Your task to perform on an android device: Clear the cart on newegg.com. Search for "apple airpods" on newegg.com, select the first entry, and add it to the cart. Image 0: 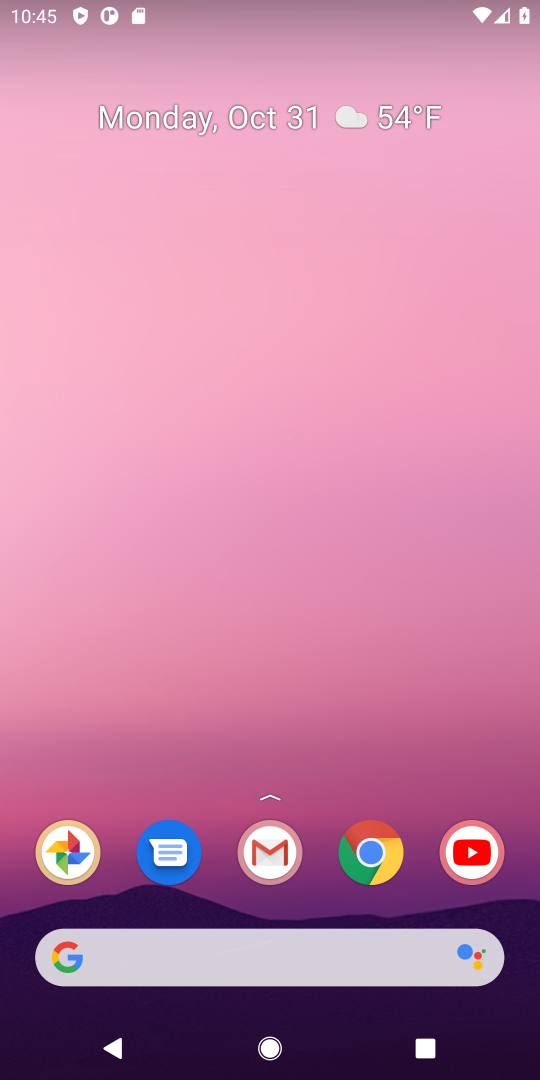
Step 0: click (368, 831)
Your task to perform on an android device: Clear the cart on newegg.com. Search for "apple airpods" on newegg.com, select the first entry, and add it to the cart. Image 1: 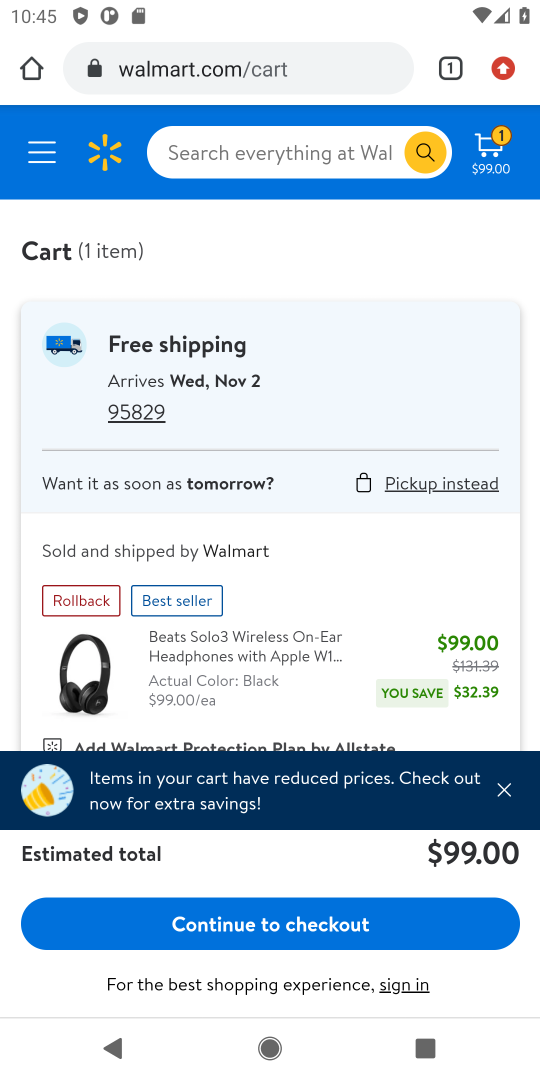
Step 1: click (273, 146)
Your task to perform on an android device: Clear the cart on newegg.com. Search for "apple airpods" on newegg.com, select the first entry, and add it to the cart. Image 2: 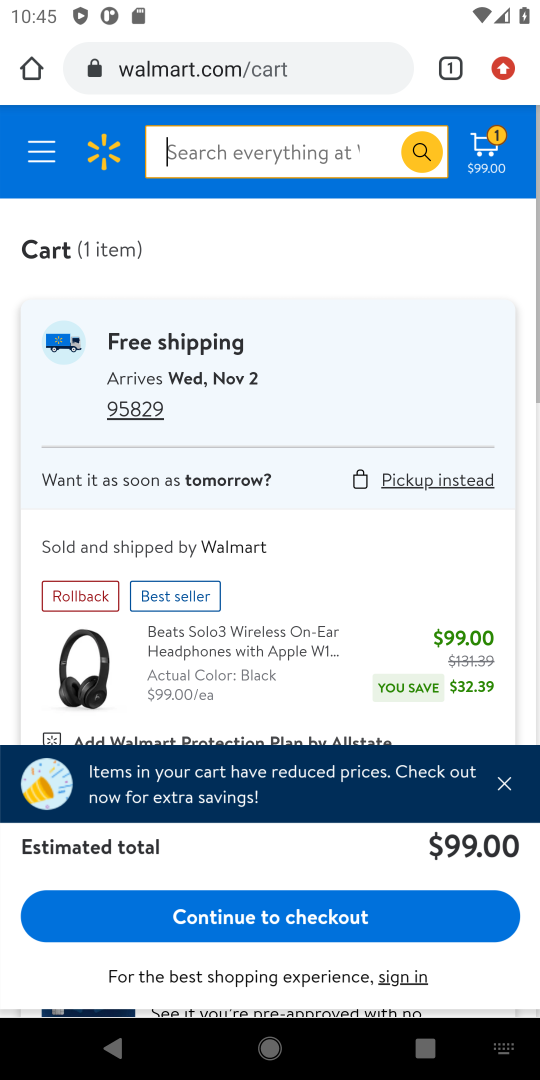
Step 2: click (260, 56)
Your task to perform on an android device: Clear the cart on newegg.com. Search for "apple airpods" on newegg.com, select the first entry, and add it to the cart. Image 3: 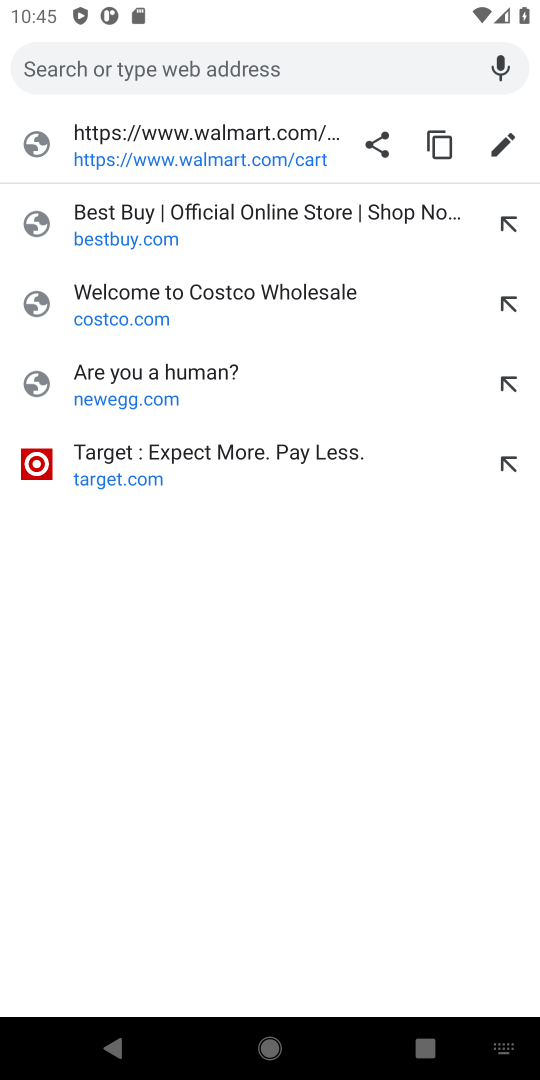
Step 3: type "newegg.com"
Your task to perform on an android device: Clear the cart on newegg.com. Search for "apple airpods" on newegg.com, select the first entry, and add it to the cart. Image 4: 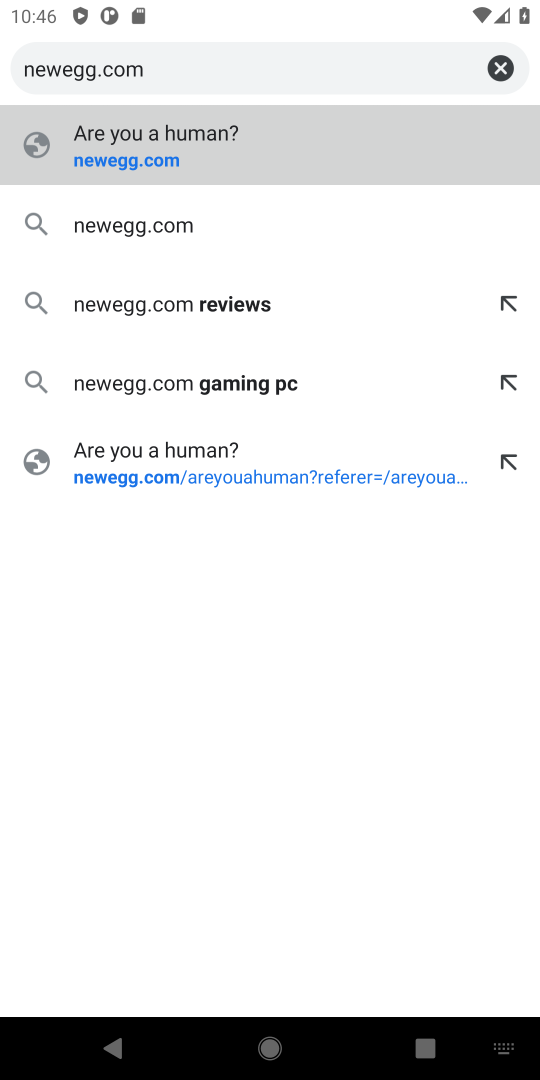
Step 4: press enter
Your task to perform on an android device: Clear the cart on newegg.com. Search for "apple airpods" on newegg.com, select the first entry, and add it to the cart. Image 5: 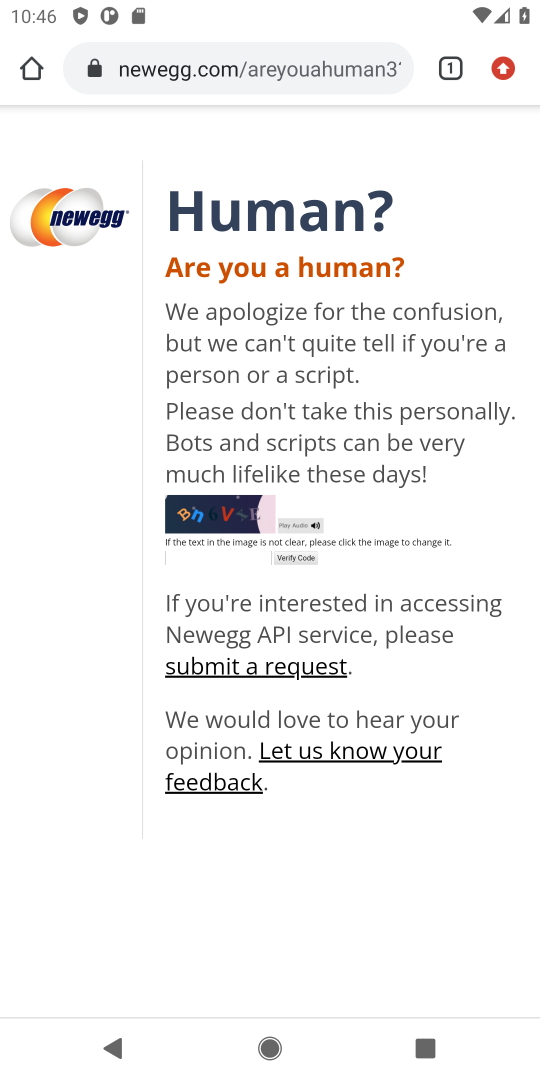
Step 5: click (193, 560)
Your task to perform on an android device: Clear the cart on newegg.com. Search for "apple airpods" on newegg.com, select the first entry, and add it to the cart. Image 6: 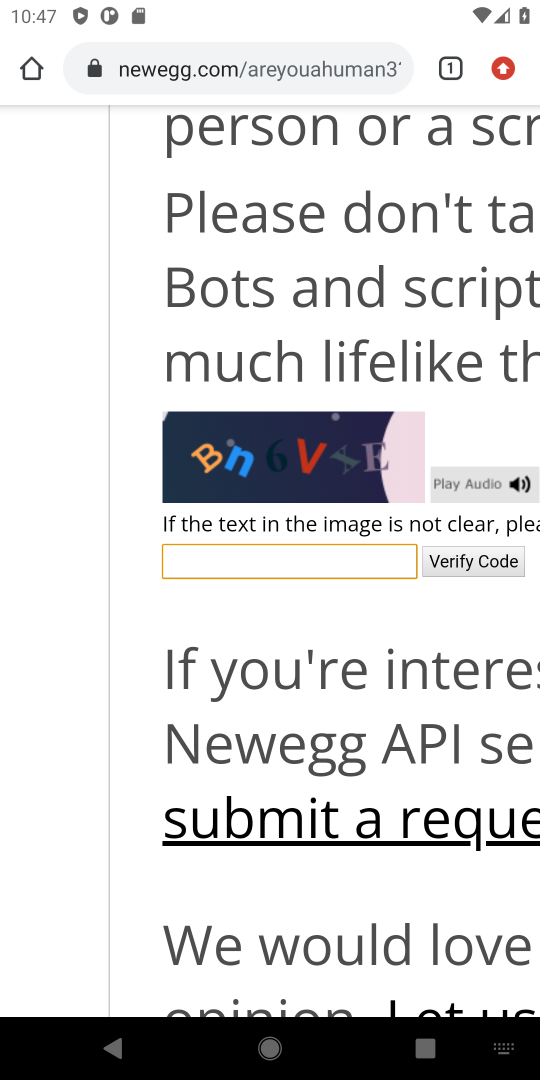
Step 6: drag from (320, 673) to (166, 650)
Your task to perform on an android device: Clear the cart on newegg.com. Search for "apple airpods" on newegg.com, select the first entry, and add it to the cart. Image 7: 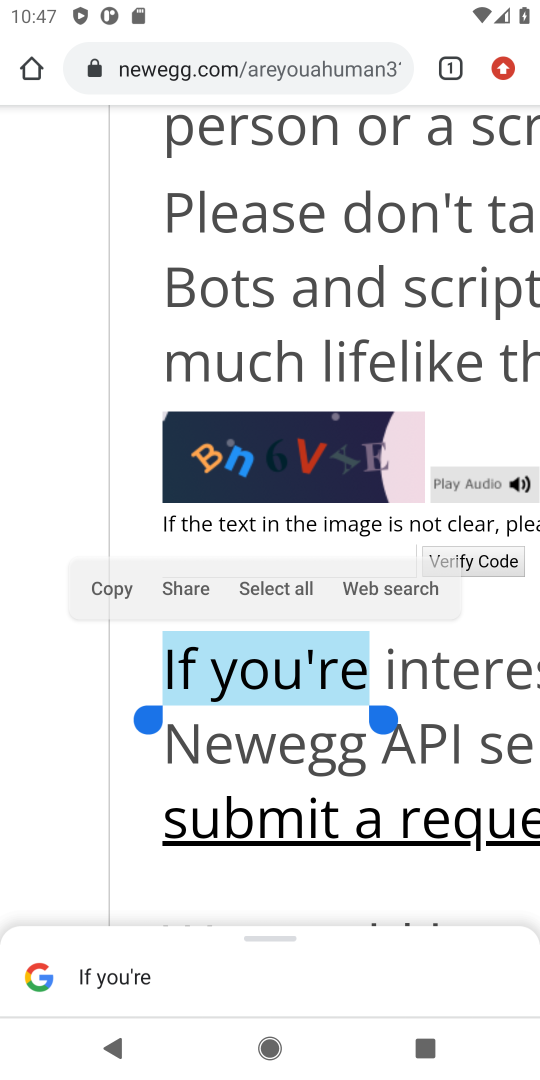
Step 7: click (318, 590)
Your task to perform on an android device: Clear the cart on newegg.com. Search for "apple airpods" on newegg.com, select the first entry, and add it to the cart. Image 8: 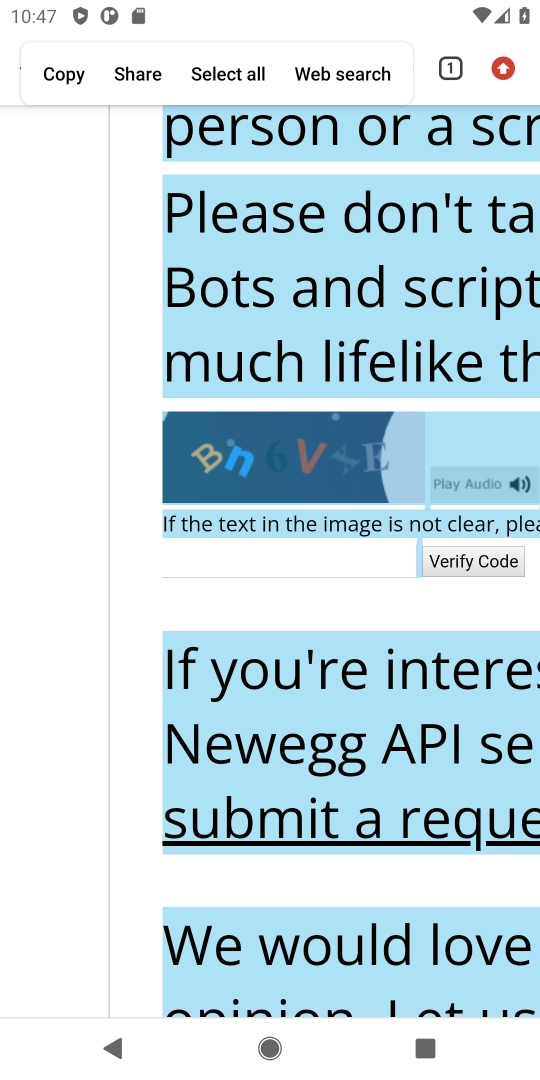
Step 8: click (256, 617)
Your task to perform on an android device: Clear the cart on newegg.com. Search for "apple airpods" on newegg.com, select the first entry, and add it to the cart. Image 9: 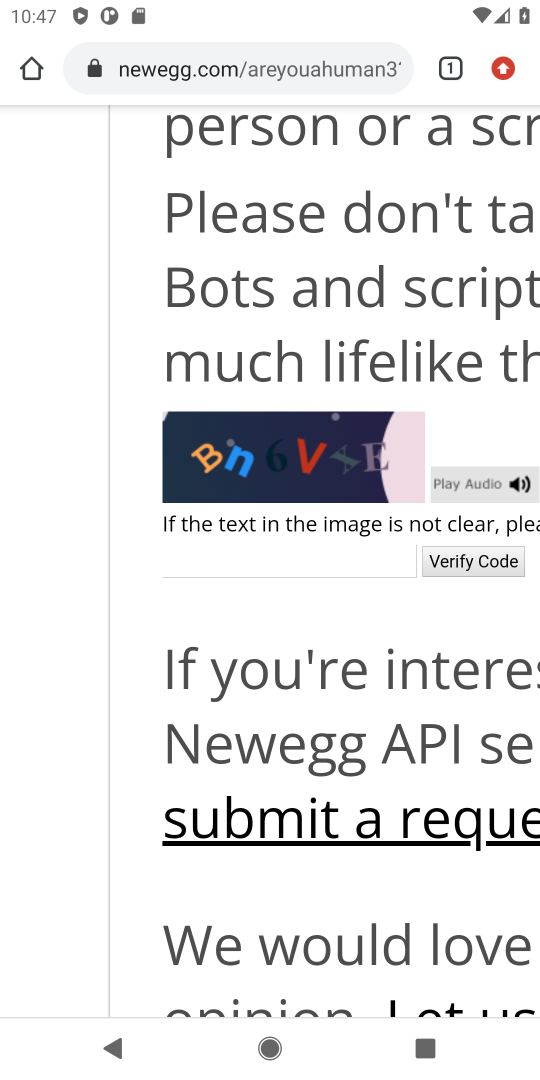
Step 9: drag from (422, 632) to (190, 628)
Your task to perform on an android device: Clear the cart on newegg.com. Search for "apple airpods" on newegg.com, select the first entry, and add it to the cart. Image 10: 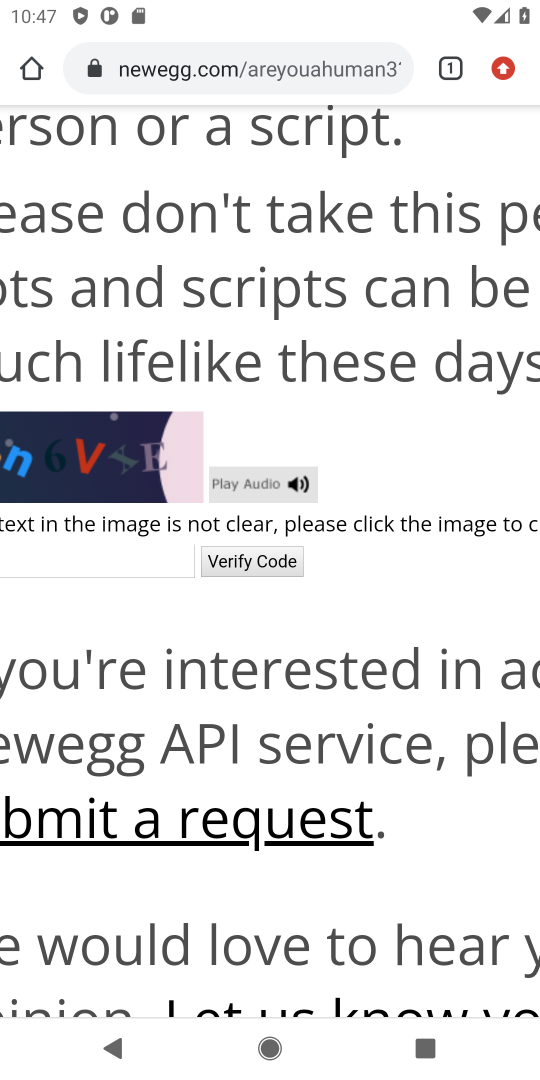
Step 10: press back button
Your task to perform on an android device: Clear the cart on newegg.com. Search for "apple airpods" on newegg.com, select the first entry, and add it to the cart. Image 11: 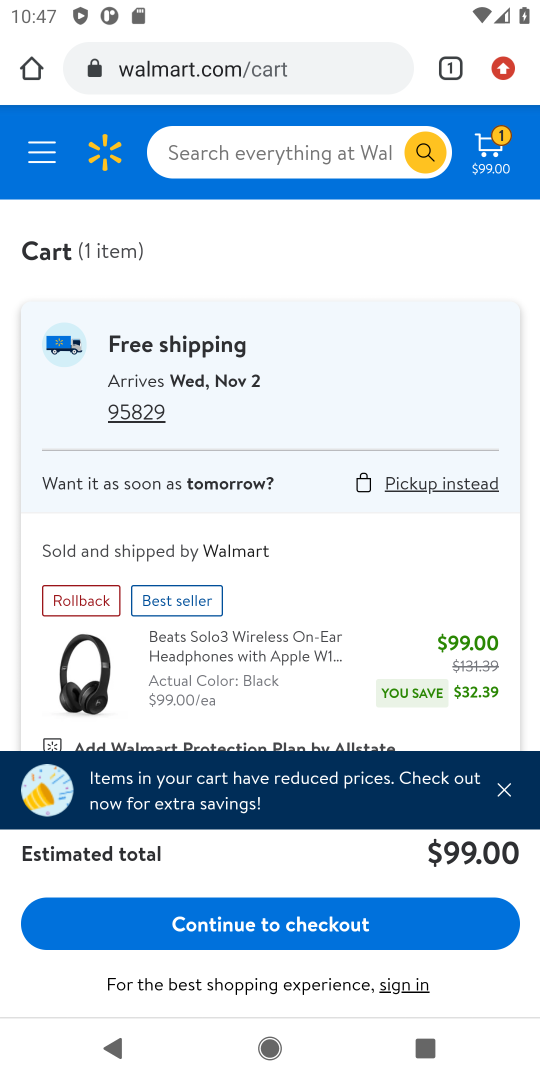
Step 11: click (203, 76)
Your task to perform on an android device: Clear the cart on newegg.com. Search for "apple airpods" on newegg.com, select the first entry, and add it to the cart. Image 12: 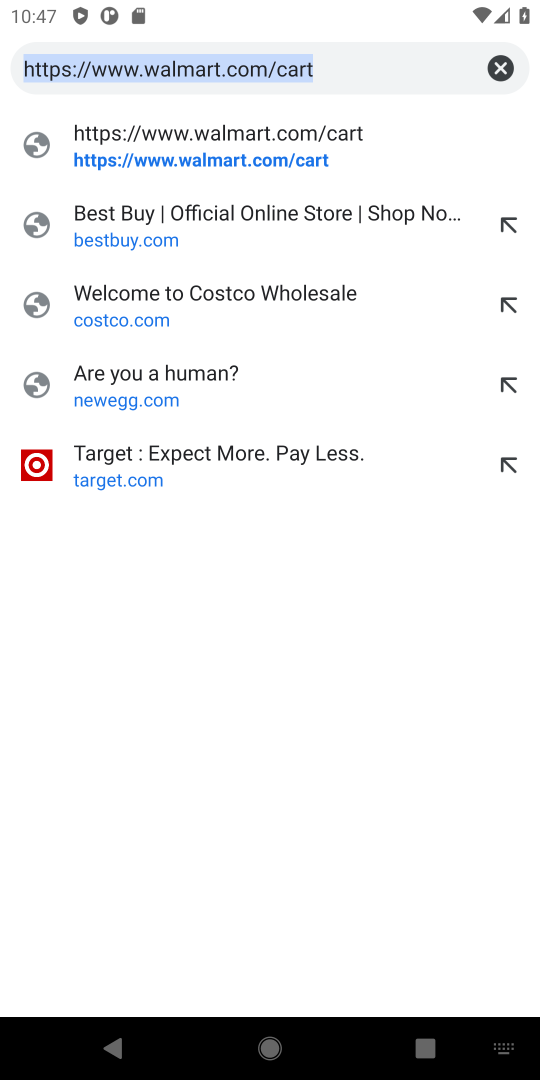
Step 12: type "newegg.com"
Your task to perform on an android device: Clear the cart on newegg.com. Search for "apple airpods" on newegg.com, select the first entry, and add it to the cart. Image 13: 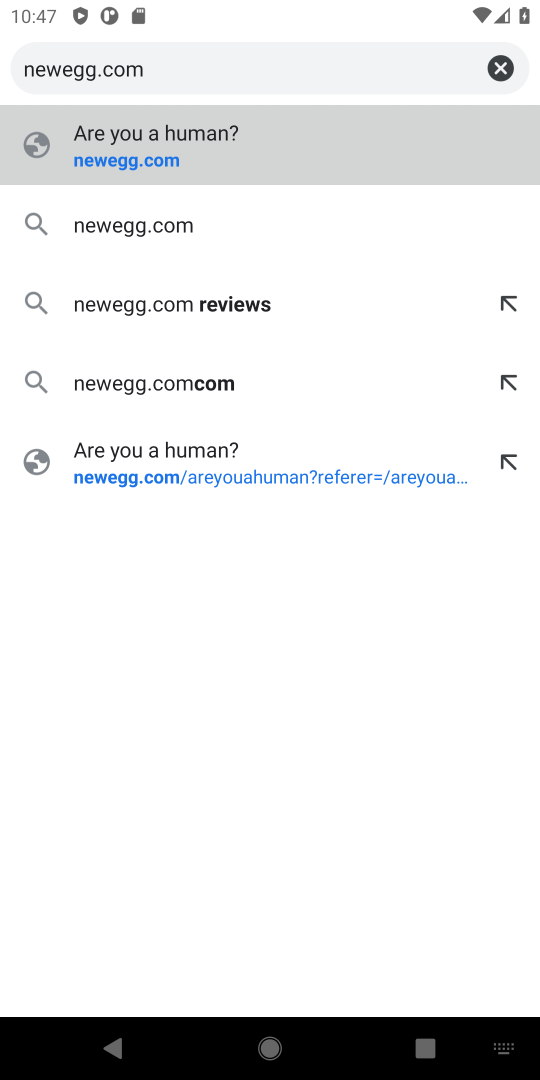
Step 13: type ""
Your task to perform on an android device: Clear the cart on newegg.com. Search for "apple airpods" on newegg.com, select the first entry, and add it to the cart. Image 14: 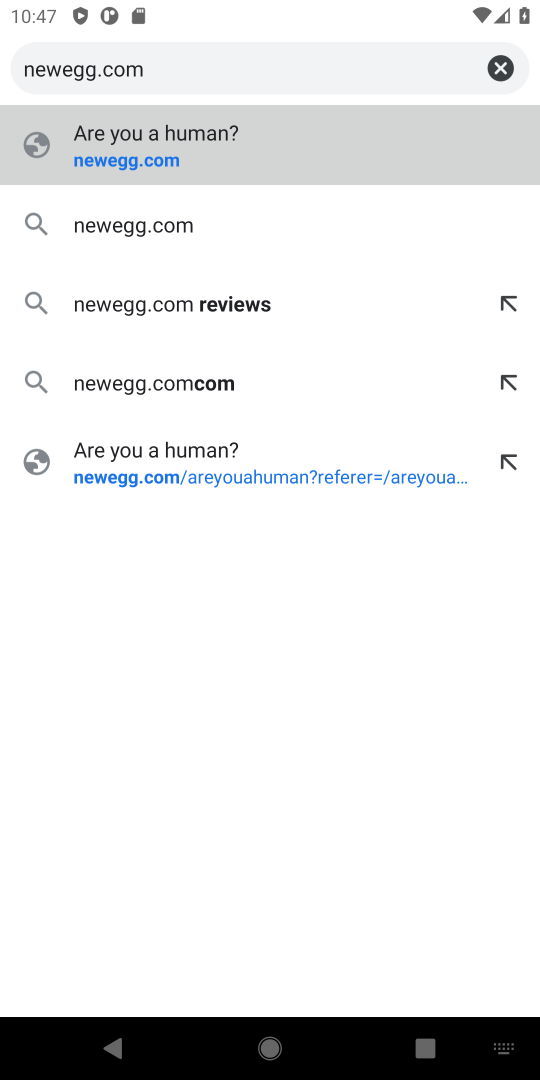
Step 14: press enter
Your task to perform on an android device: Clear the cart on newegg.com. Search for "apple airpods" on newegg.com, select the first entry, and add it to the cart. Image 15: 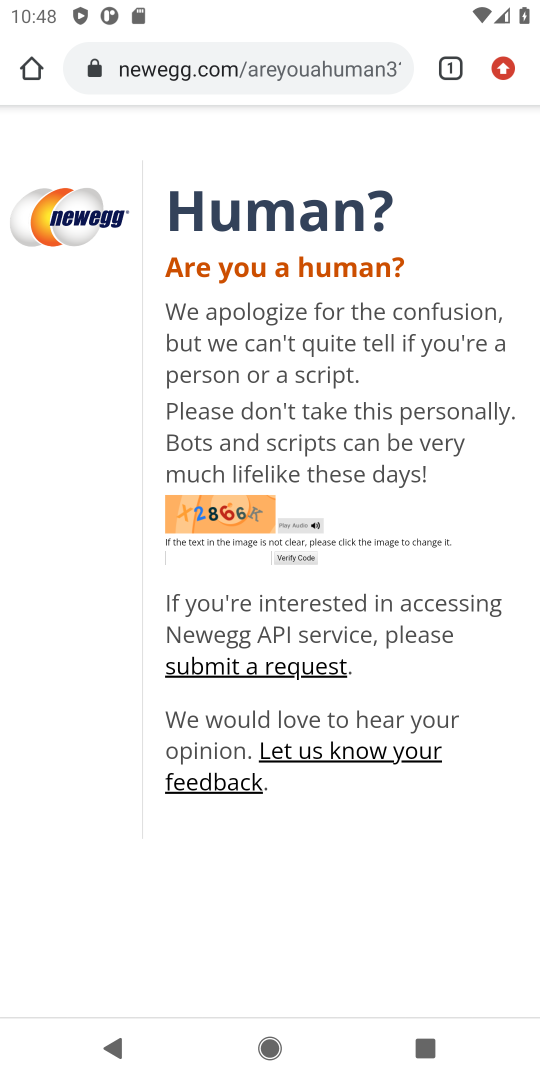
Step 15: click (204, 560)
Your task to perform on an android device: Clear the cart on newegg.com. Search for "apple airpods" on newegg.com, select the first entry, and add it to the cart. Image 16: 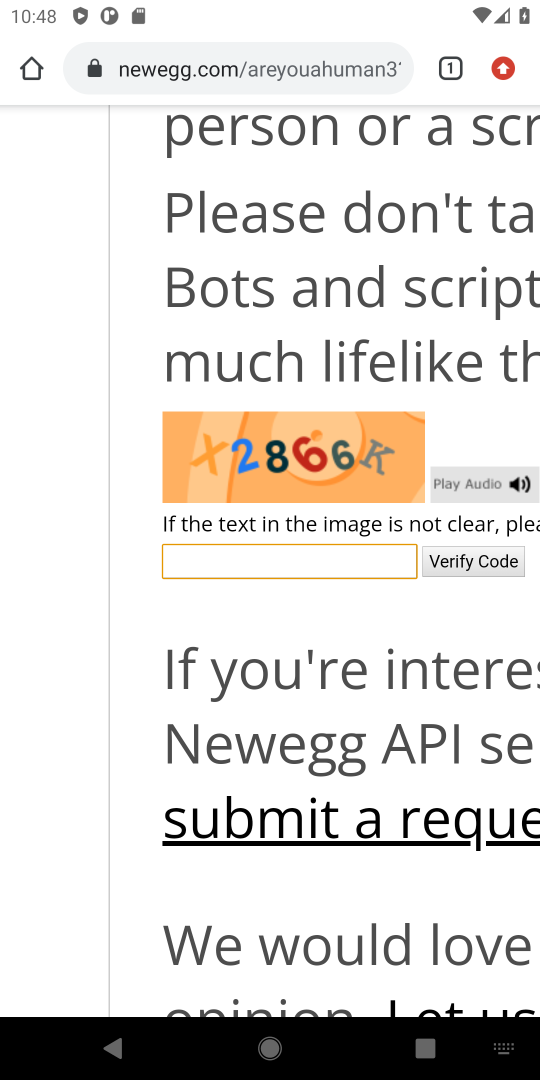
Step 16: type "X2866K"
Your task to perform on an android device: Clear the cart on newegg.com. Search for "apple airpods" on newegg.com, select the first entry, and add it to the cart. Image 17: 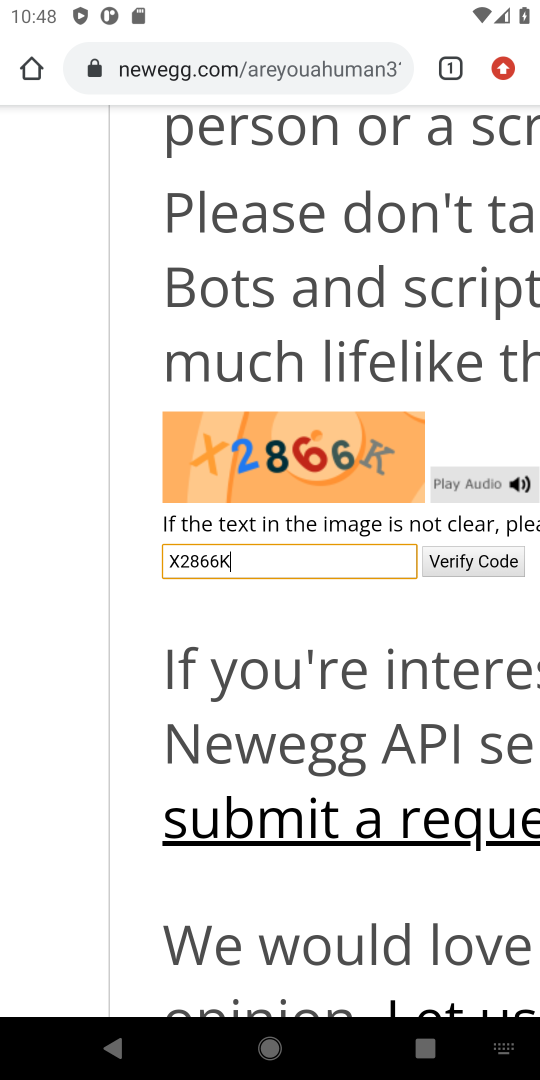
Step 17: type ""
Your task to perform on an android device: Clear the cart on newegg.com. Search for "apple airpods" on newegg.com, select the first entry, and add it to the cart. Image 18: 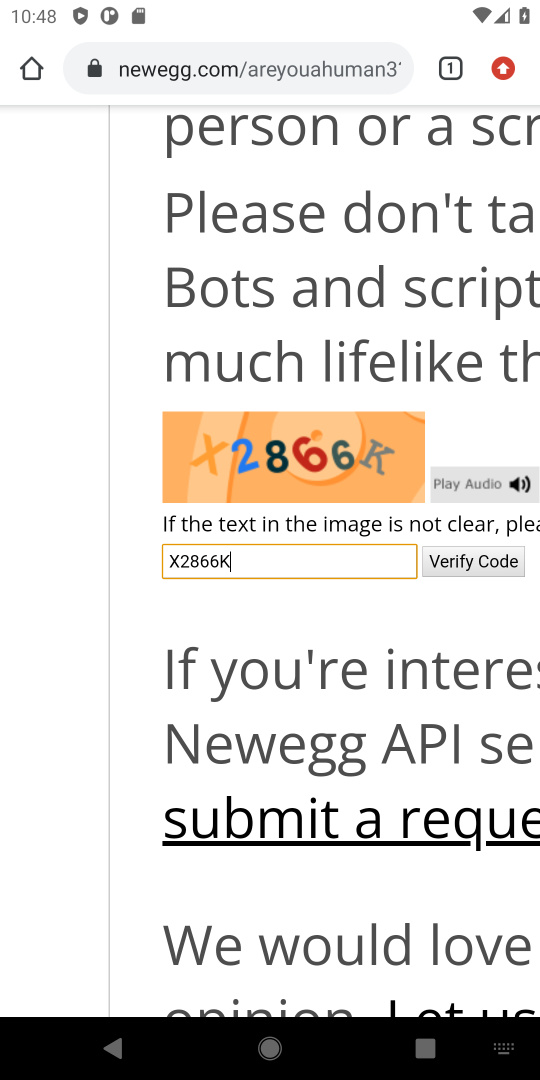
Step 18: click (476, 572)
Your task to perform on an android device: Clear the cart on newegg.com. Search for "apple airpods" on newegg.com, select the first entry, and add it to the cart. Image 19: 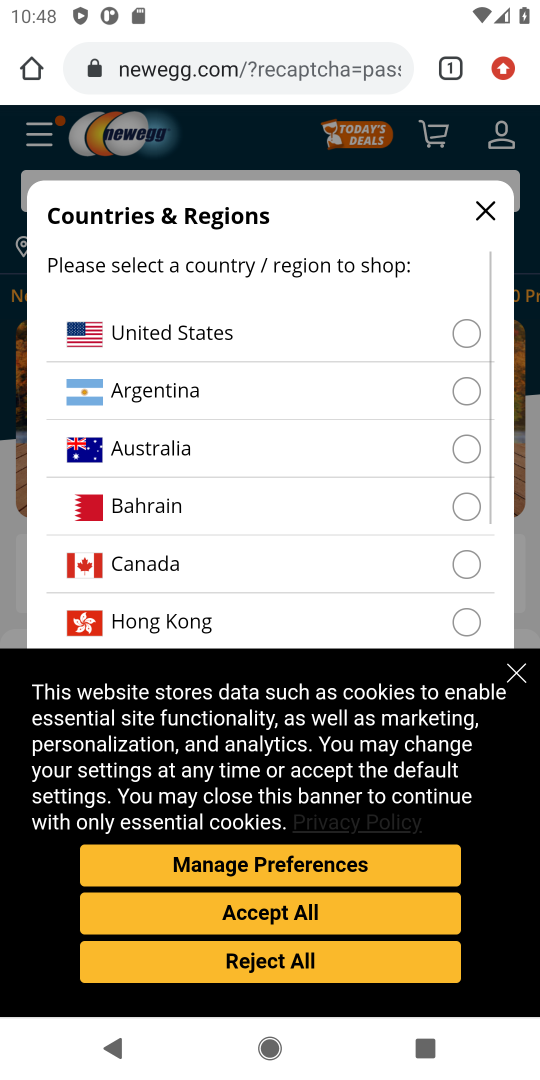
Step 19: click (276, 909)
Your task to perform on an android device: Clear the cart on newegg.com. Search for "apple airpods" on newegg.com, select the first entry, and add it to the cart. Image 20: 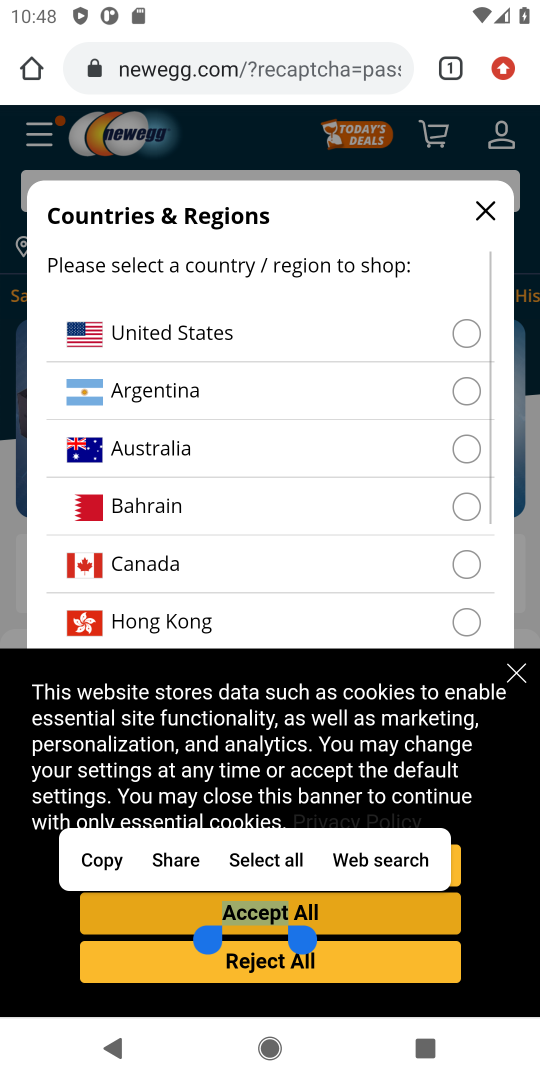
Step 20: click (347, 927)
Your task to perform on an android device: Clear the cart on newegg.com. Search for "apple airpods" on newegg.com, select the first entry, and add it to the cart. Image 21: 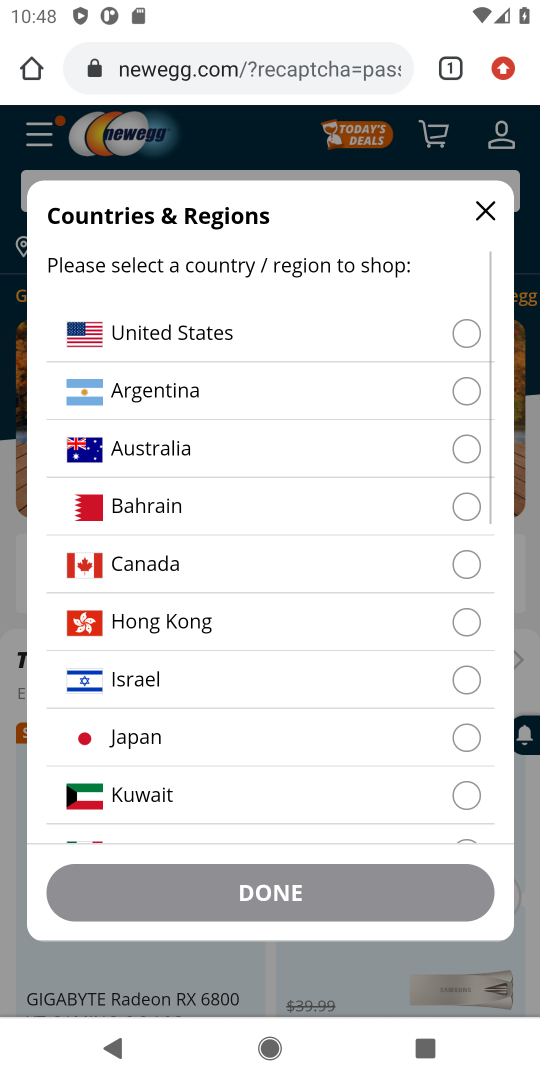
Step 21: click (389, 337)
Your task to perform on an android device: Clear the cart on newegg.com. Search for "apple airpods" on newegg.com, select the first entry, and add it to the cart. Image 22: 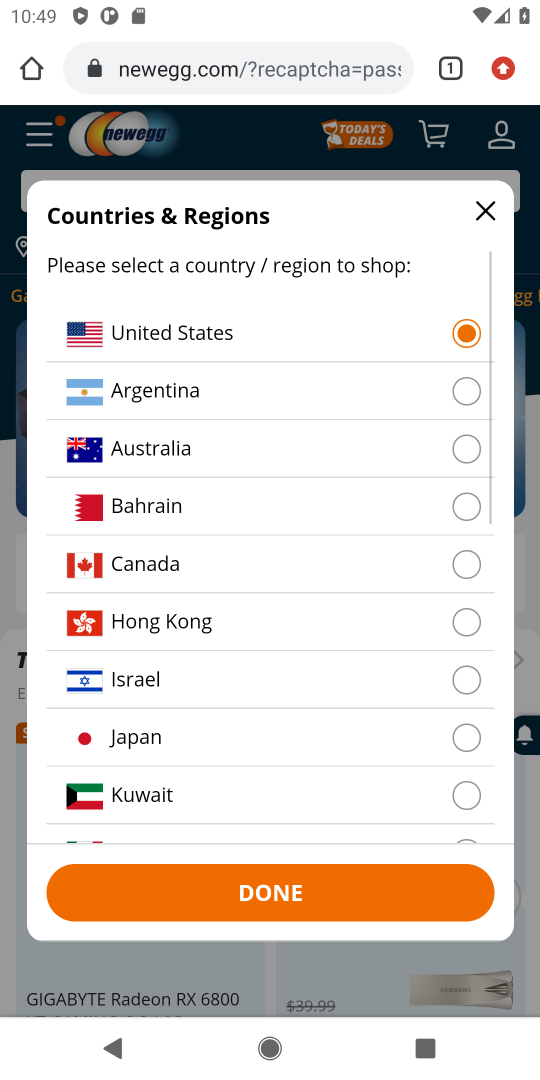
Step 22: click (377, 891)
Your task to perform on an android device: Clear the cart on newegg.com. Search for "apple airpods" on newegg.com, select the first entry, and add it to the cart. Image 23: 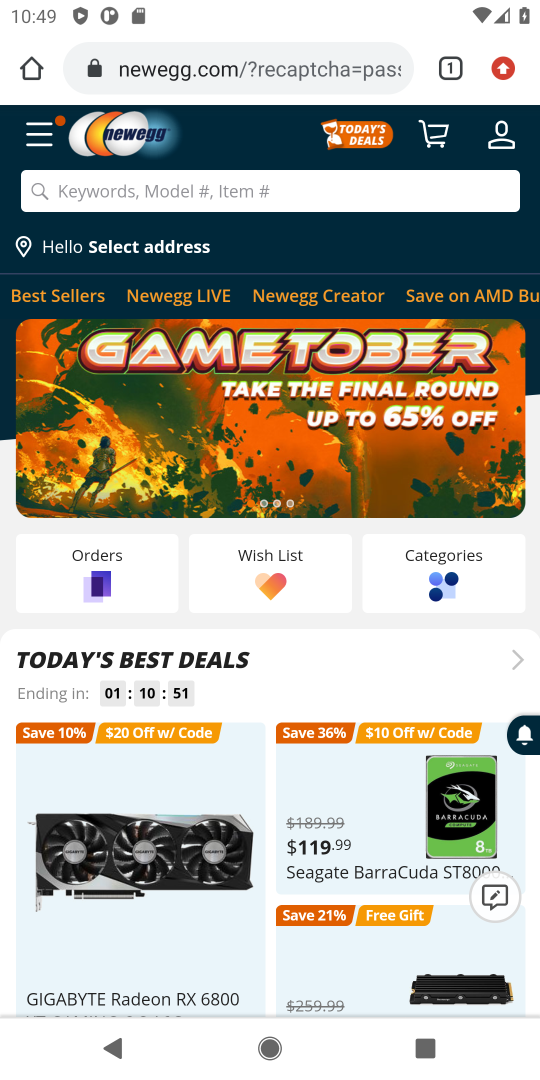
Step 23: click (271, 206)
Your task to perform on an android device: Clear the cart on newegg.com. Search for "apple airpods" on newegg.com, select the first entry, and add it to the cart. Image 24: 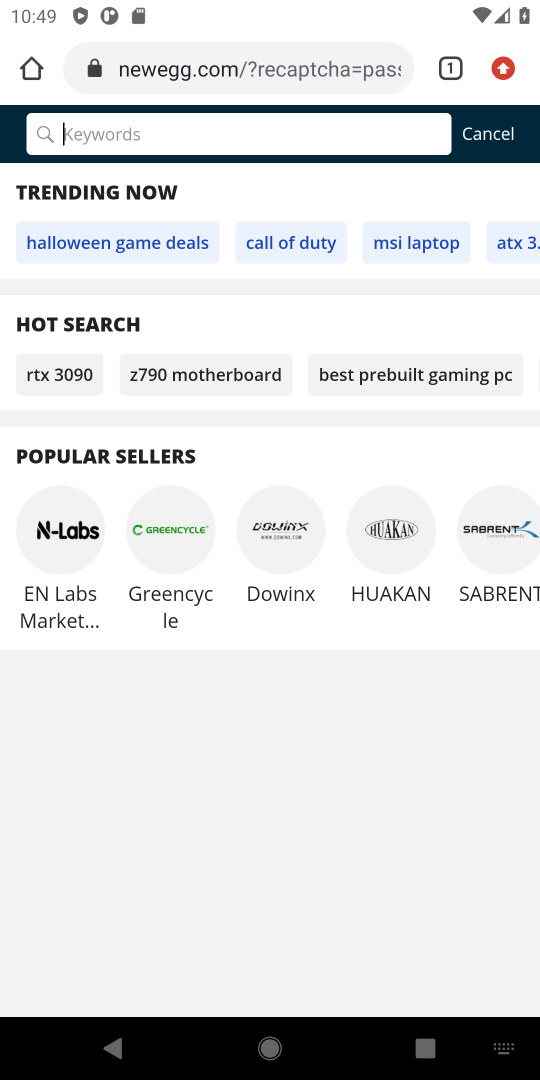
Step 24: type "apple airpods"
Your task to perform on an android device: Clear the cart on newegg.com. Search for "apple airpods" on newegg.com, select the first entry, and add it to the cart. Image 25: 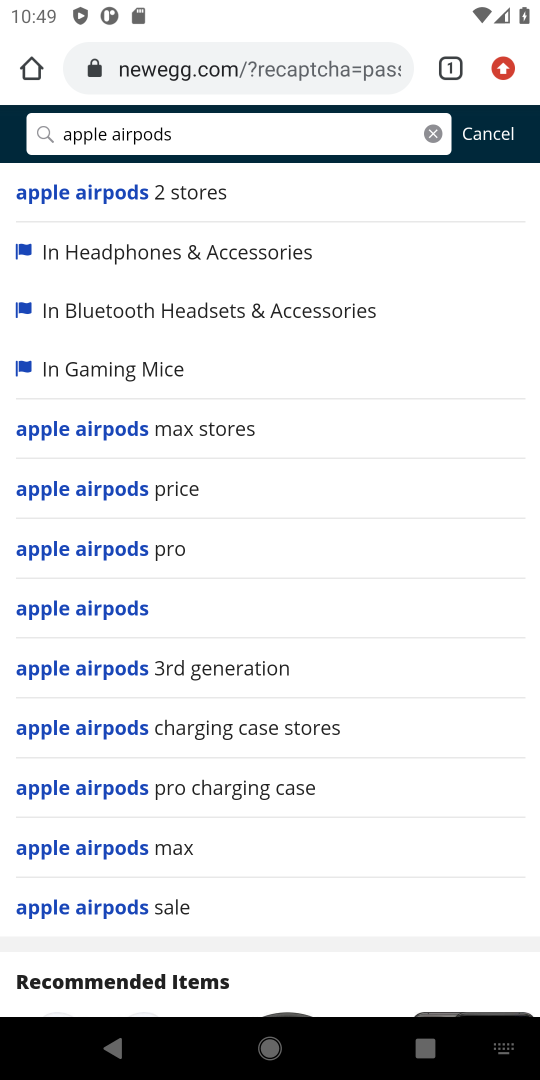
Step 25: press enter
Your task to perform on an android device: Clear the cart on newegg.com. Search for "apple airpods" on newegg.com, select the first entry, and add it to the cart. Image 26: 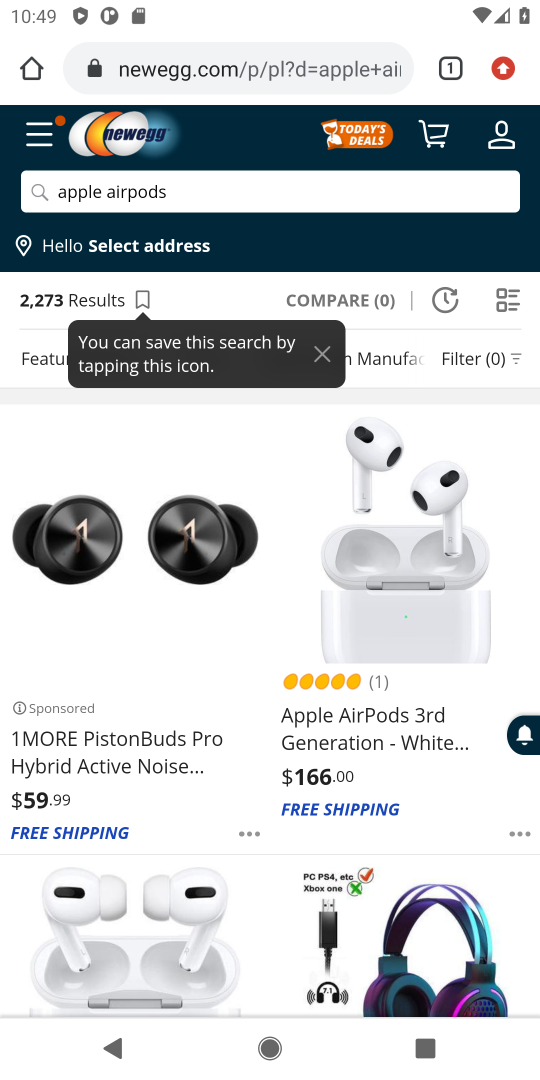
Step 26: click (376, 607)
Your task to perform on an android device: Clear the cart on newegg.com. Search for "apple airpods" on newegg.com, select the first entry, and add it to the cart. Image 27: 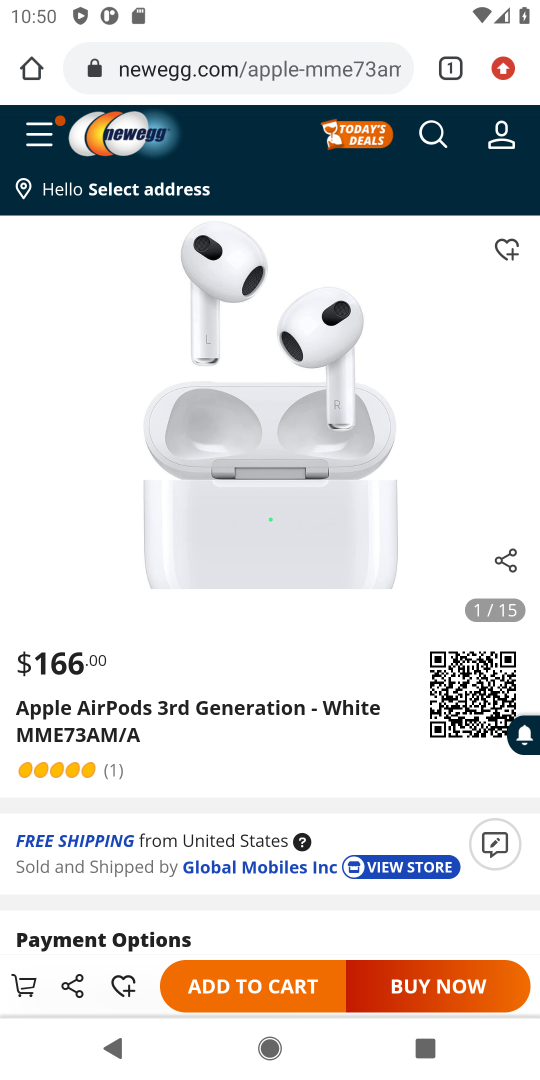
Step 27: click (281, 978)
Your task to perform on an android device: Clear the cart on newegg.com. Search for "apple airpods" on newegg.com, select the first entry, and add it to the cart. Image 28: 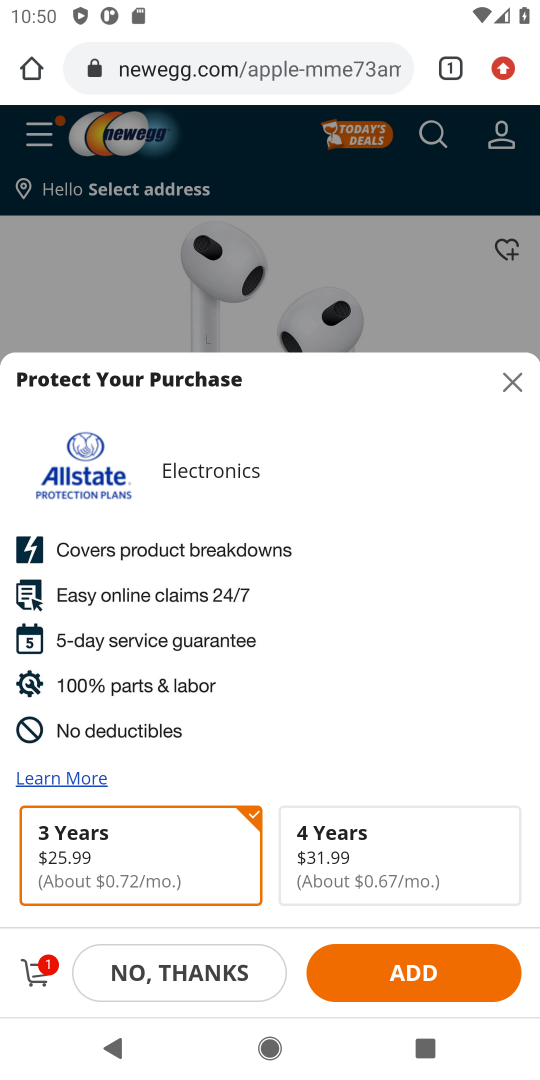
Step 28: click (147, 973)
Your task to perform on an android device: Clear the cart on newegg.com. Search for "apple airpods" on newegg.com, select the first entry, and add it to the cart. Image 29: 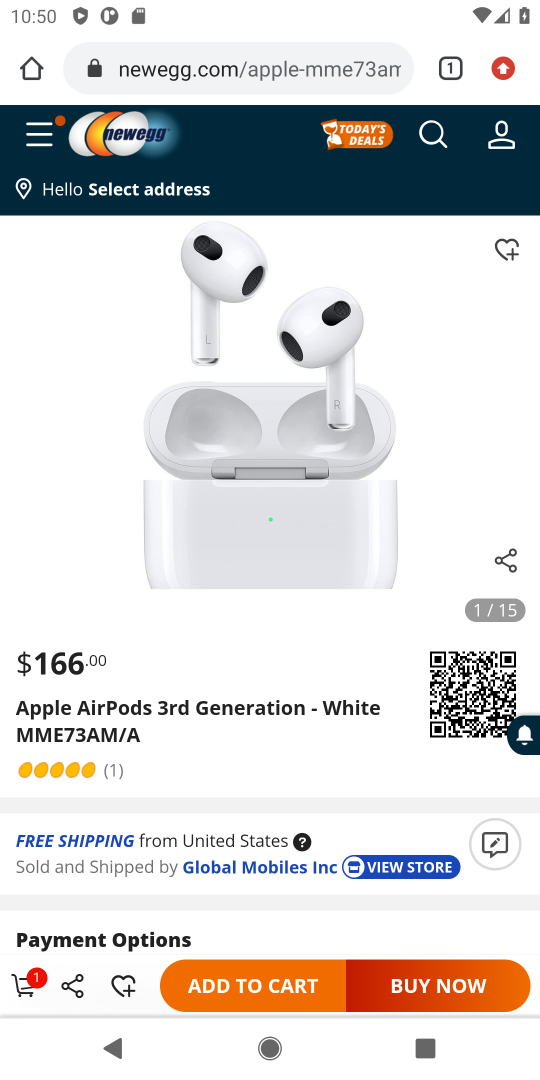
Step 29: task complete